Your task to perform on an android device: turn off location Image 0: 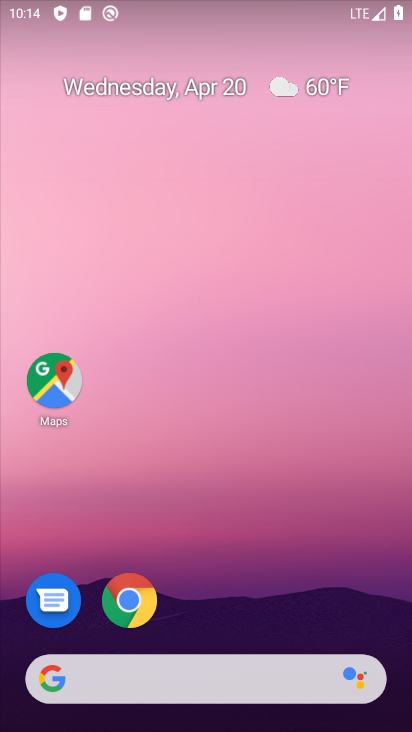
Step 0: drag from (259, 616) to (235, 19)
Your task to perform on an android device: turn off location Image 1: 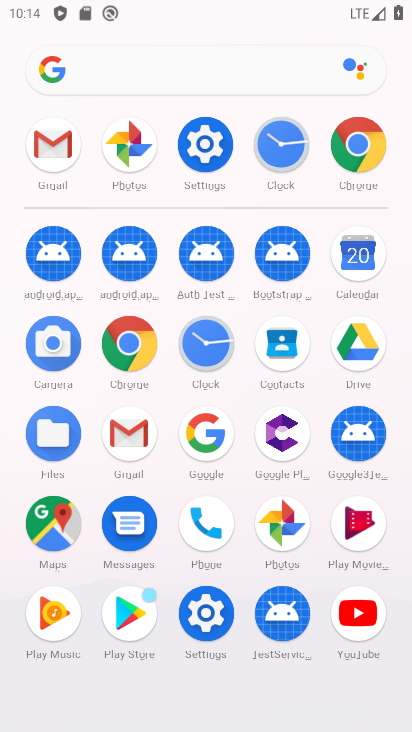
Step 1: click (210, 624)
Your task to perform on an android device: turn off location Image 2: 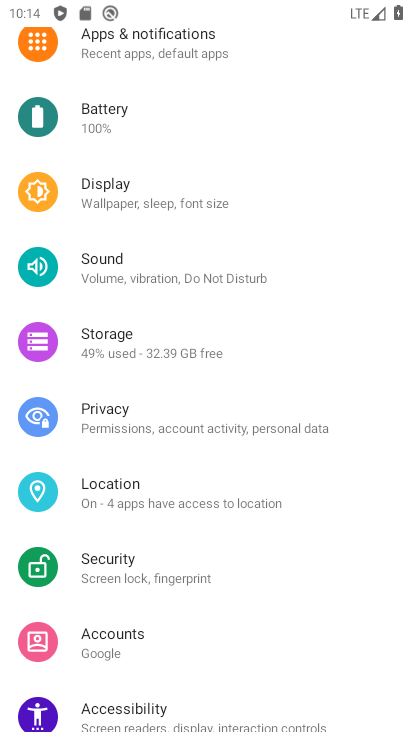
Step 2: click (167, 503)
Your task to perform on an android device: turn off location Image 3: 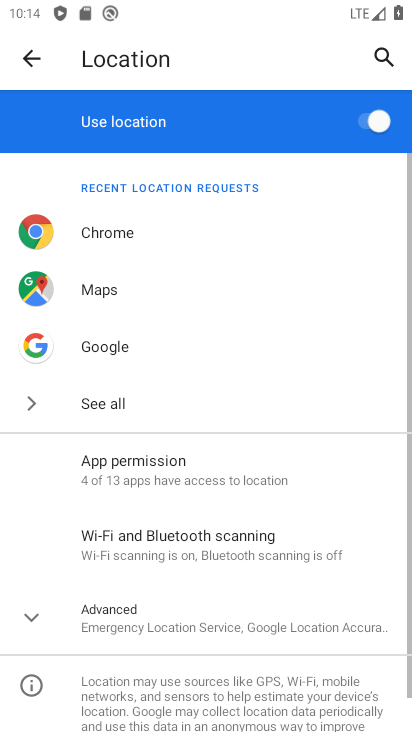
Step 3: click (372, 127)
Your task to perform on an android device: turn off location Image 4: 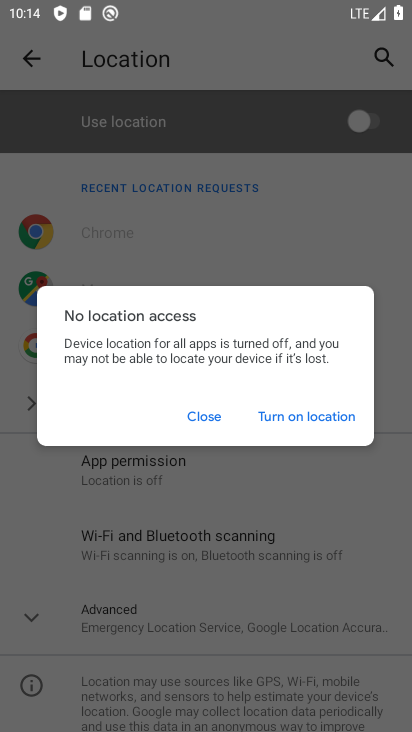
Step 4: task complete